Your task to perform on an android device: see tabs open on other devices in the chrome app Image 0: 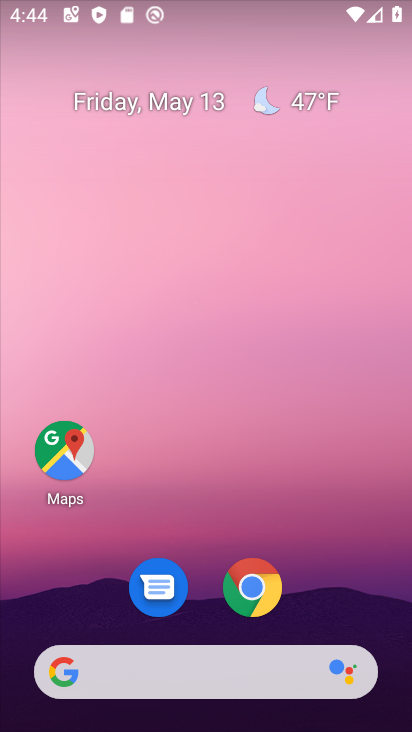
Step 0: click (269, 578)
Your task to perform on an android device: see tabs open on other devices in the chrome app Image 1: 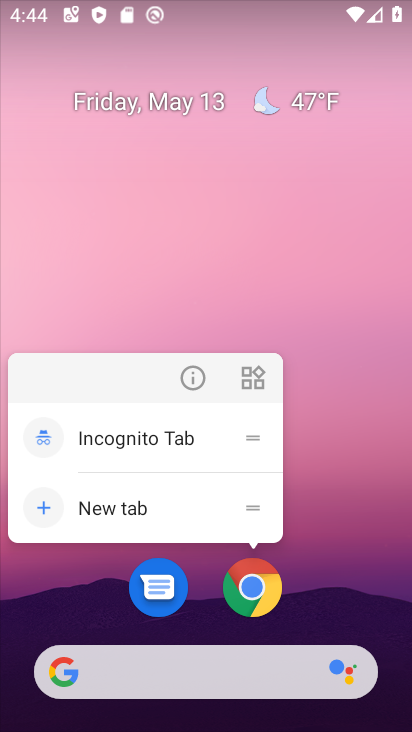
Step 1: click (242, 582)
Your task to perform on an android device: see tabs open on other devices in the chrome app Image 2: 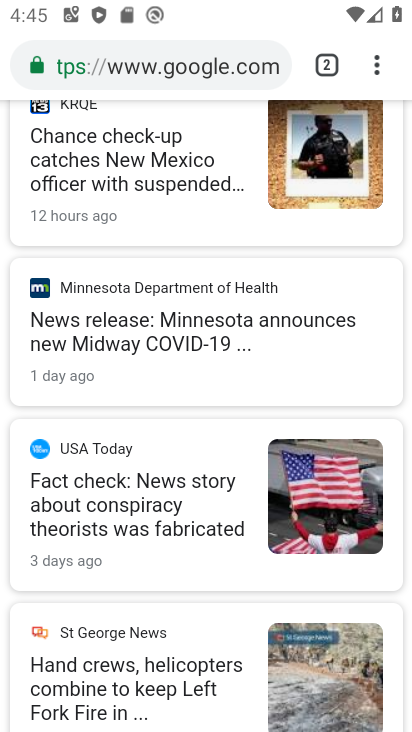
Step 2: press home button
Your task to perform on an android device: see tabs open on other devices in the chrome app Image 3: 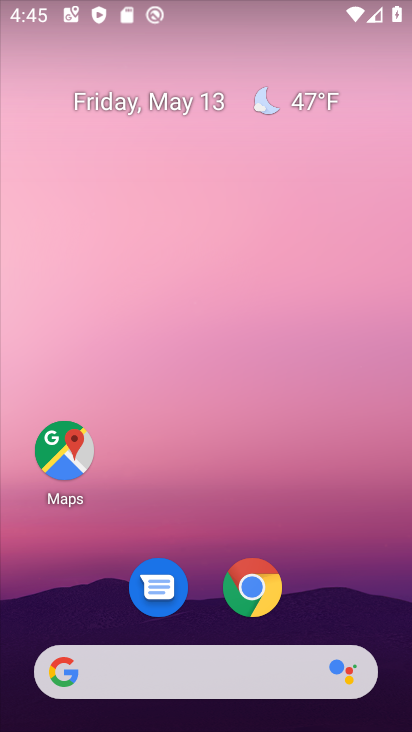
Step 3: click (241, 588)
Your task to perform on an android device: see tabs open on other devices in the chrome app Image 4: 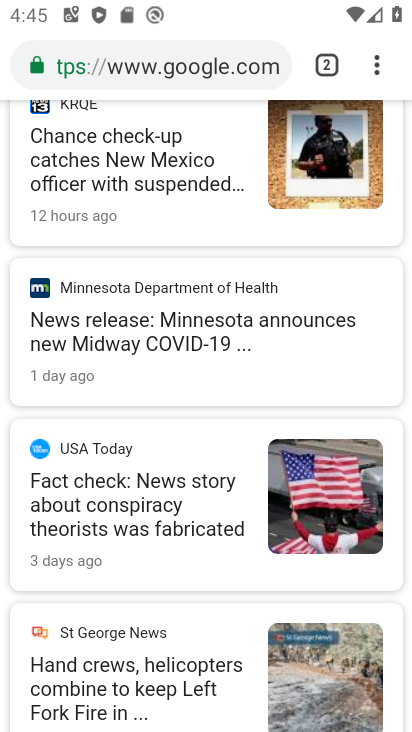
Step 4: drag from (378, 74) to (163, 333)
Your task to perform on an android device: see tabs open on other devices in the chrome app Image 5: 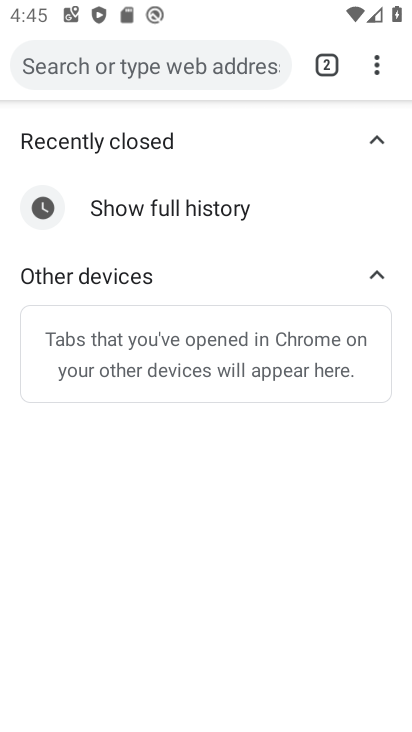
Step 5: click (167, 274)
Your task to perform on an android device: see tabs open on other devices in the chrome app Image 6: 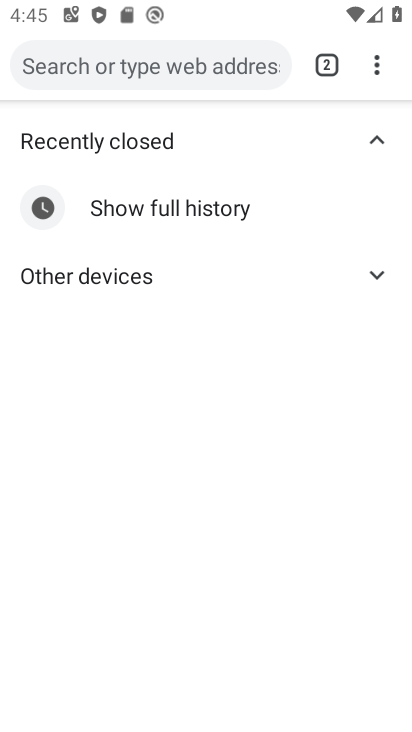
Step 6: task complete